Your task to perform on an android device: check battery use Image 0: 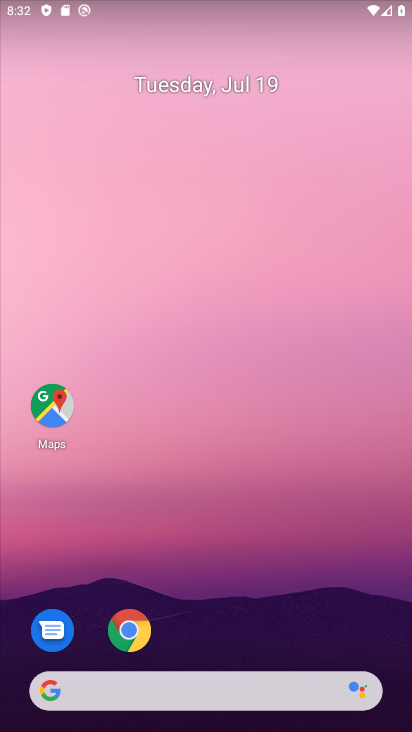
Step 0: drag from (229, 664) to (79, 172)
Your task to perform on an android device: check battery use Image 1: 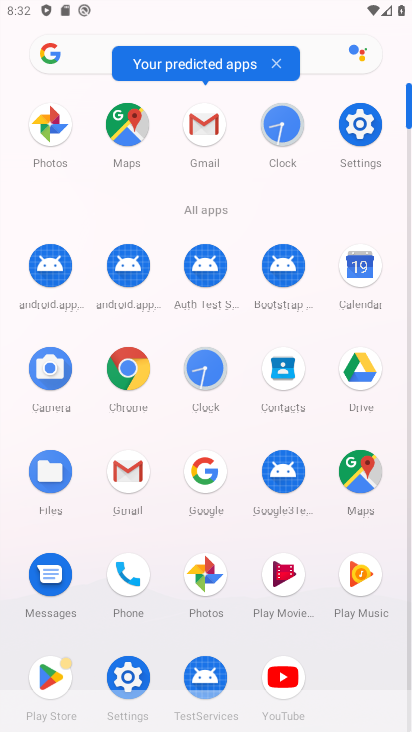
Step 1: click (361, 121)
Your task to perform on an android device: check battery use Image 2: 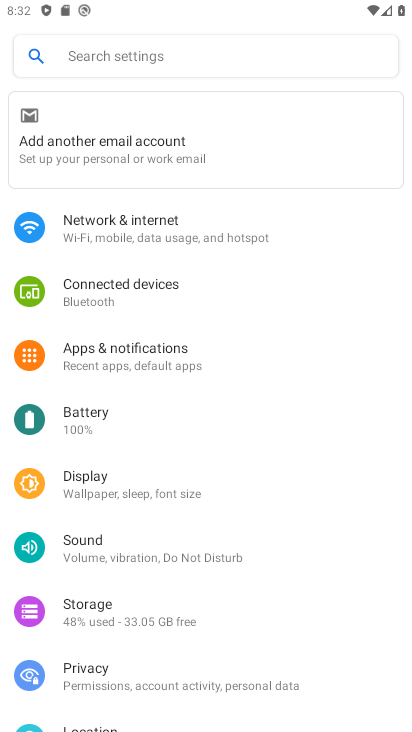
Step 2: click (90, 414)
Your task to perform on an android device: check battery use Image 3: 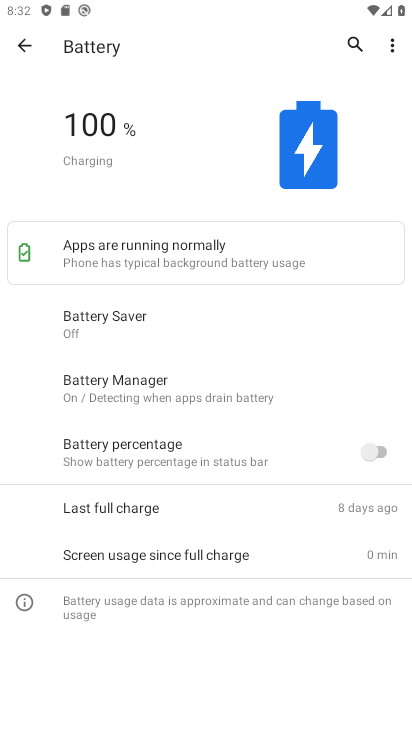
Step 3: click (392, 45)
Your task to perform on an android device: check battery use Image 4: 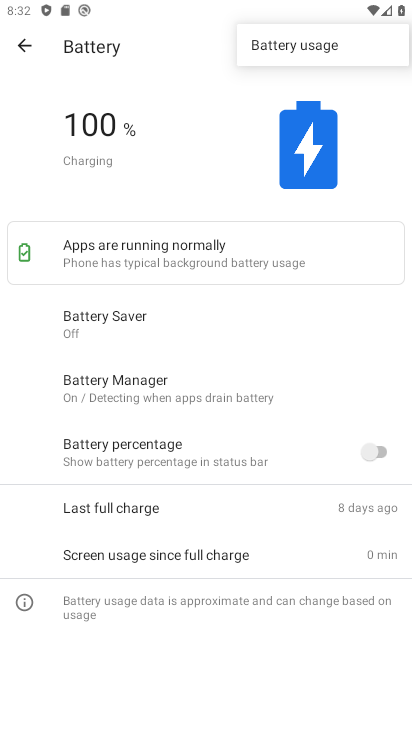
Step 4: click (328, 47)
Your task to perform on an android device: check battery use Image 5: 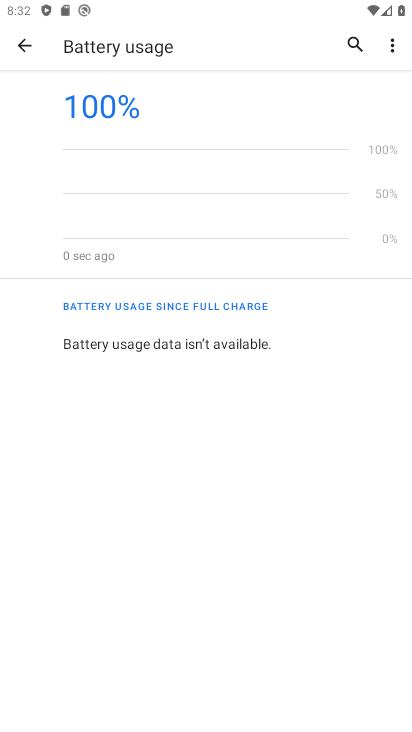
Step 5: task complete